Your task to perform on an android device: set an alarm Image 0: 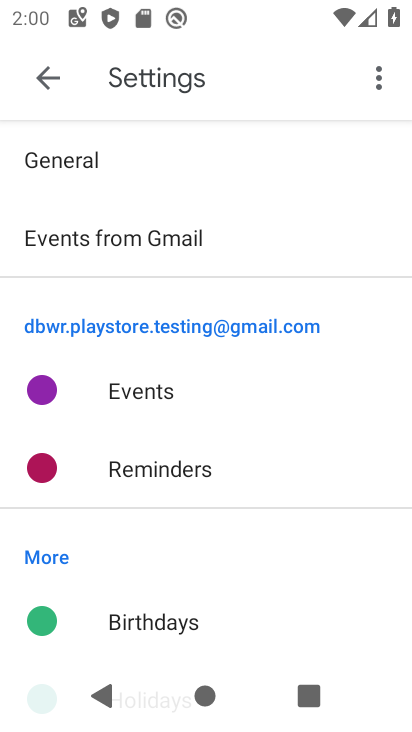
Step 0: press home button
Your task to perform on an android device: set an alarm Image 1: 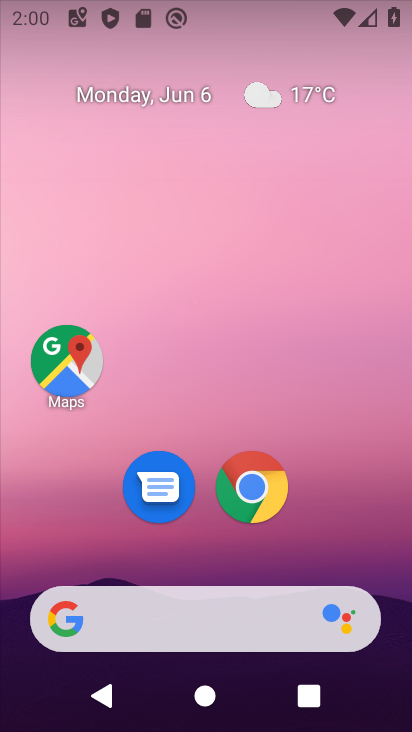
Step 1: drag from (137, 537) to (253, 162)
Your task to perform on an android device: set an alarm Image 2: 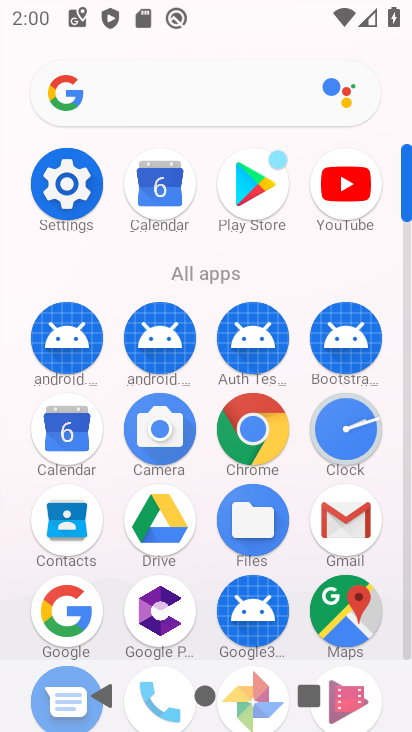
Step 2: click (357, 432)
Your task to perform on an android device: set an alarm Image 3: 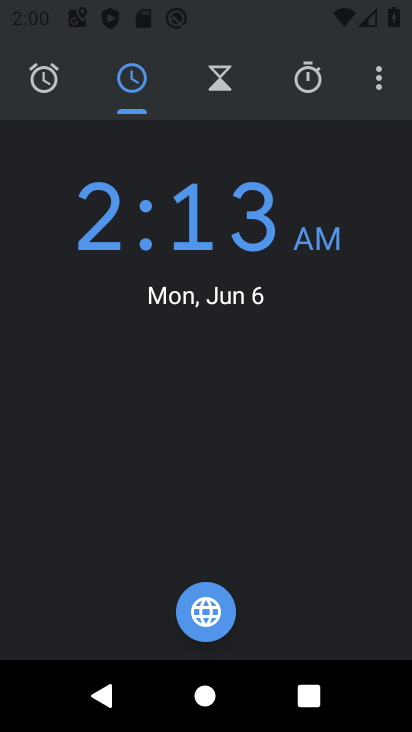
Step 3: click (70, 90)
Your task to perform on an android device: set an alarm Image 4: 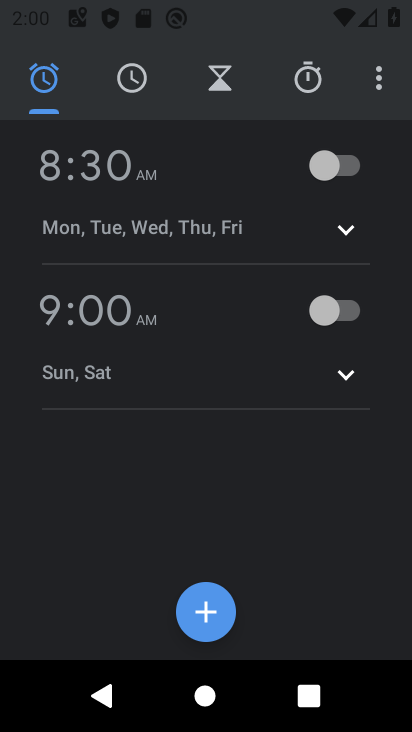
Step 4: click (204, 610)
Your task to perform on an android device: set an alarm Image 5: 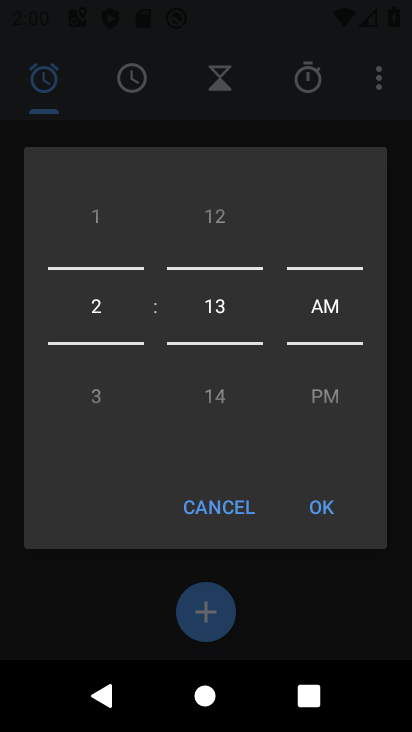
Step 5: click (93, 403)
Your task to perform on an android device: set an alarm Image 6: 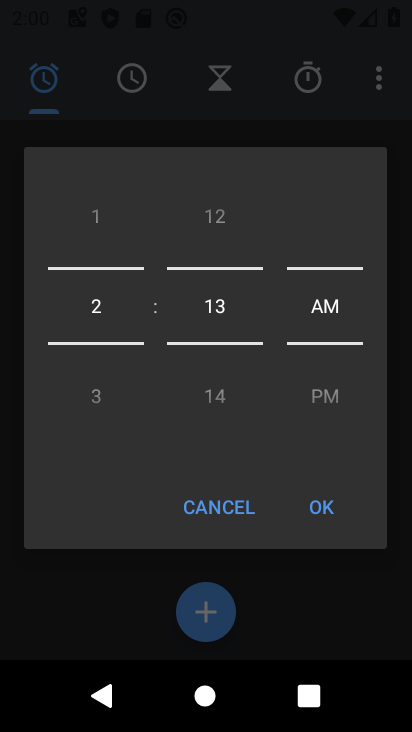
Step 6: click (91, 403)
Your task to perform on an android device: set an alarm Image 7: 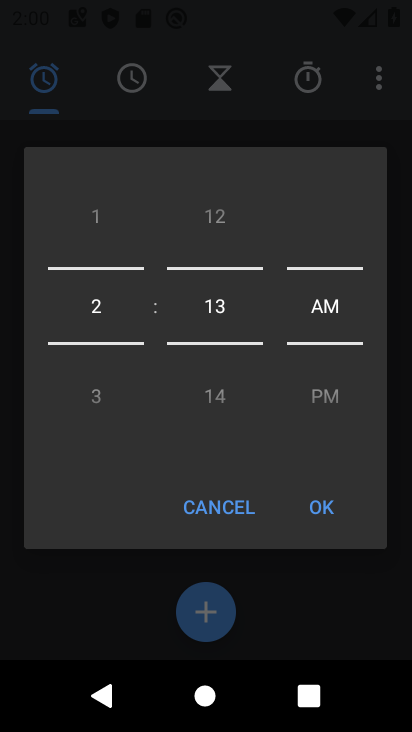
Step 7: drag from (89, 393) to (123, 193)
Your task to perform on an android device: set an alarm Image 8: 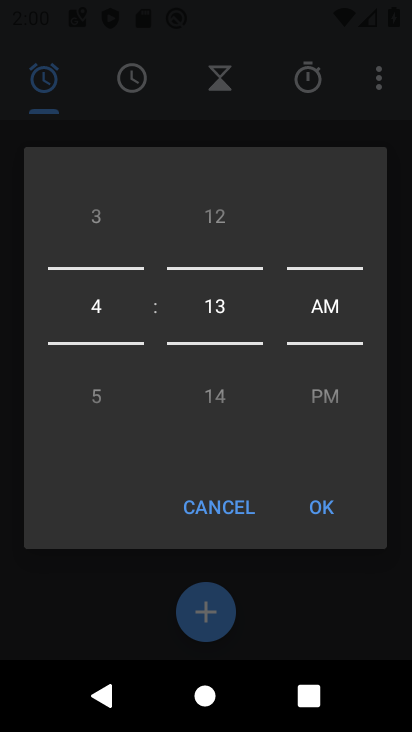
Step 8: drag from (235, 394) to (269, 195)
Your task to perform on an android device: set an alarm Image 9: 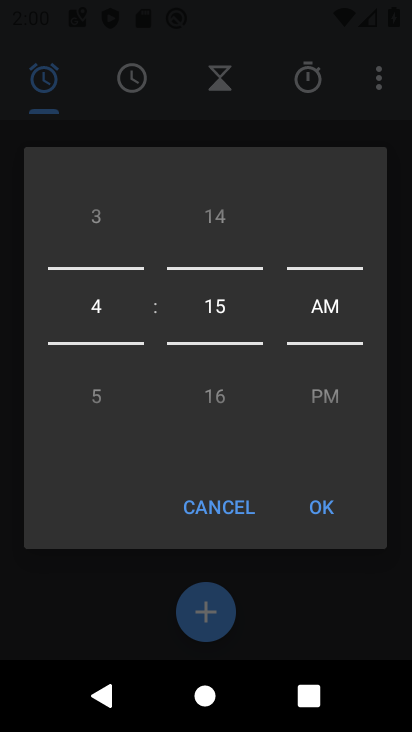
Step 9: drag from (306, 349) to (353, 259)
Your task to perform on an android device: set an alarm Image 10: 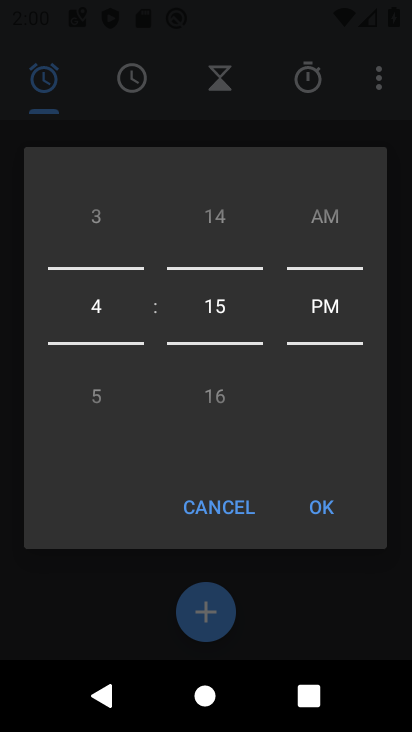
Step 10: click (333, 521)
Your task to perform on an android device: set an alarm Image 11: 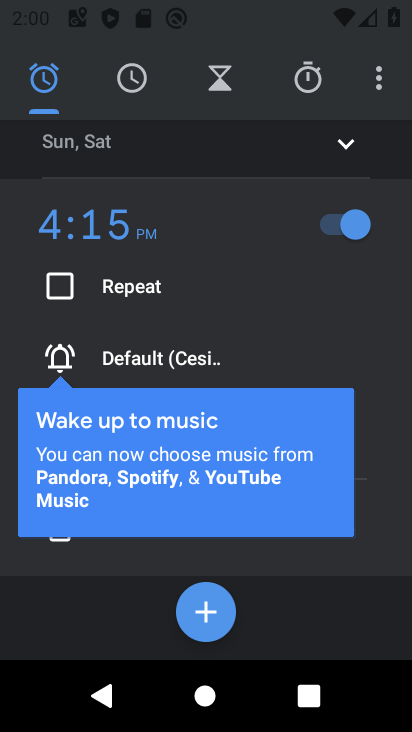
Step 11: task complete